Your task to perform on an android device: Add razer naga to the cart on ebay.com Image 0: 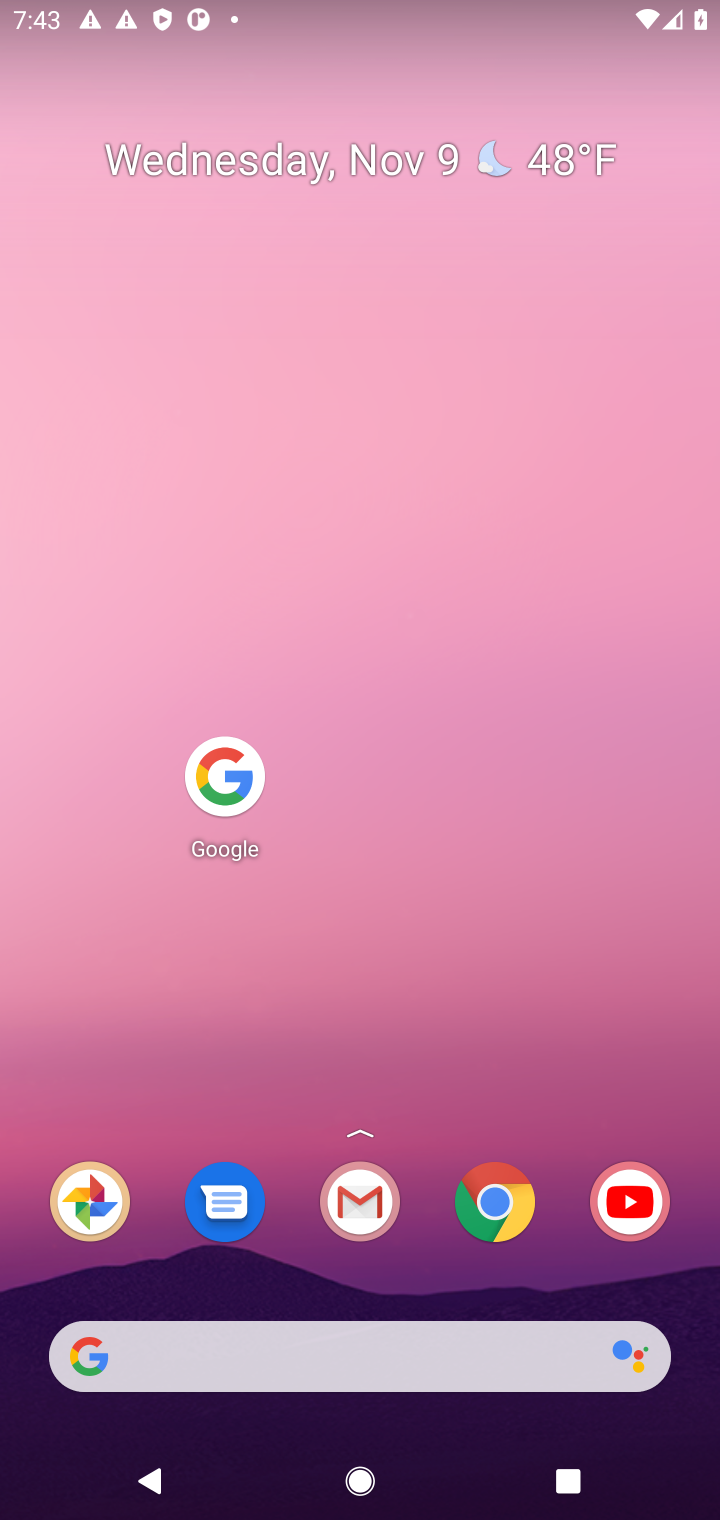
Step 0: click (502, 1212)
Your task to perform on an android device: Add razer naga to the cart on ebay.com Image 1: 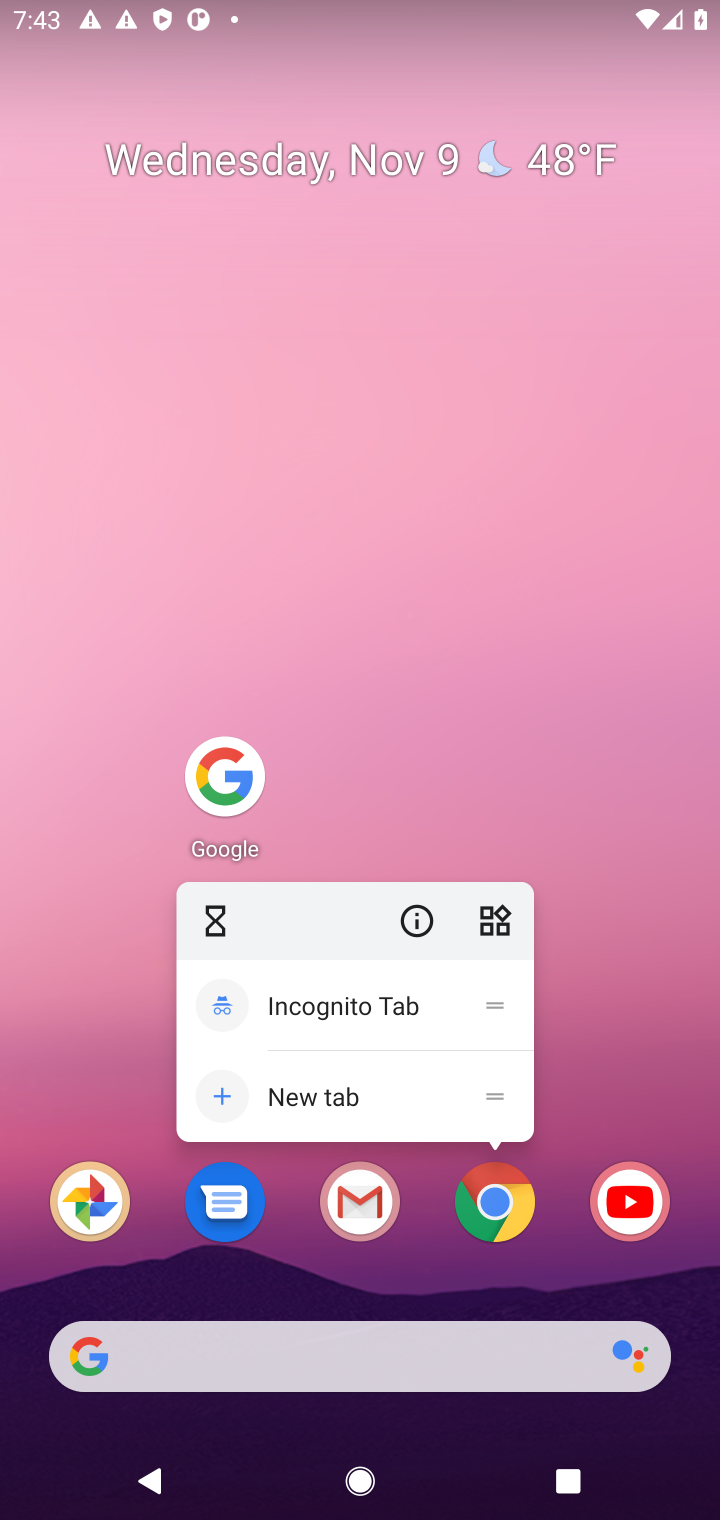
Step 1: click (476, 1216)
Your task to perform on an android device: Add razer naga to the cart on ebay.com Image 2: 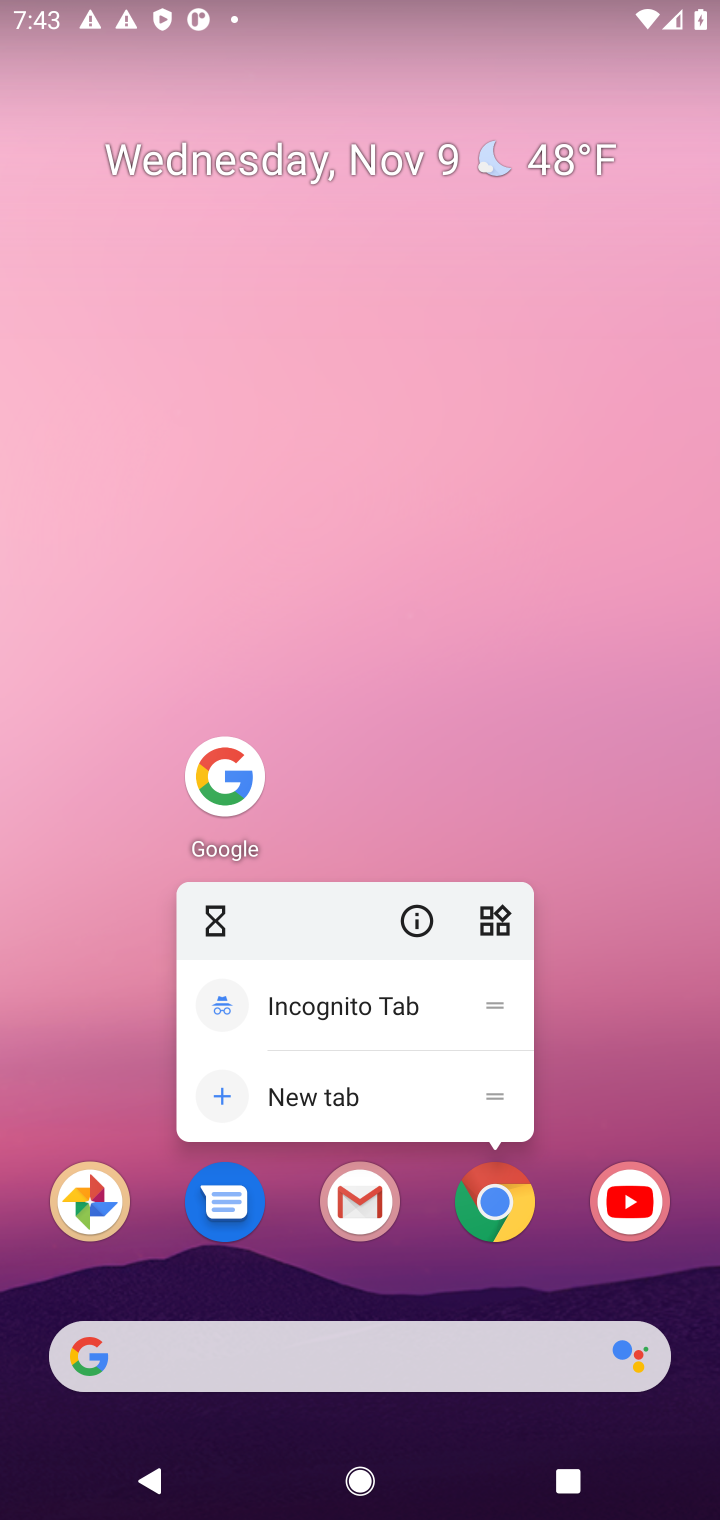
Step 2: click (504, 1202)
Your task to perform on an android device: Add razer naga to the cart on ebay.com Image 3: 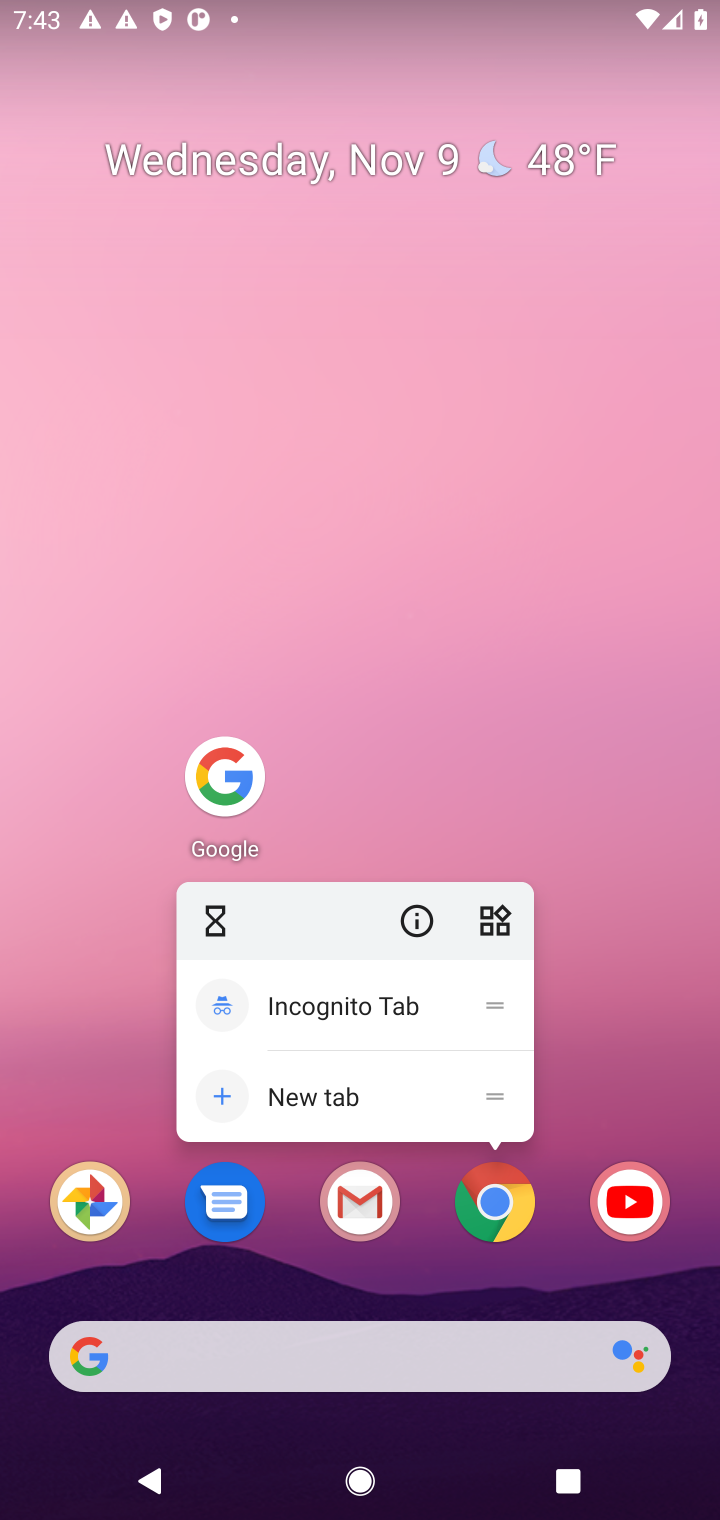
Step 3: click (504, 1204)
Your task to perform on an android device: Add razer naga to the cart on ebay.com Image 4: 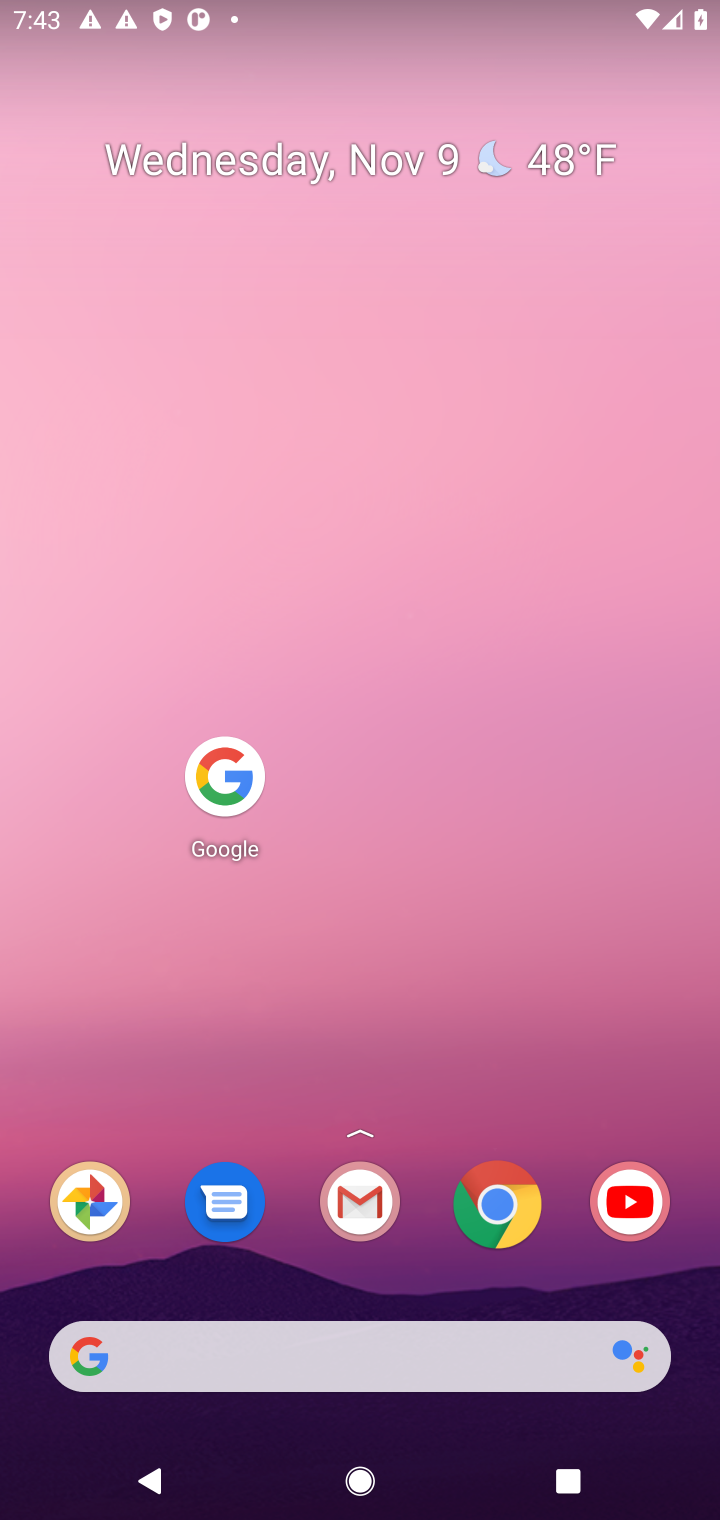
Step 4: click (504, 1204)
Your task to perform on an android device: Add razer naga to the cart on ebay.com Image 5: 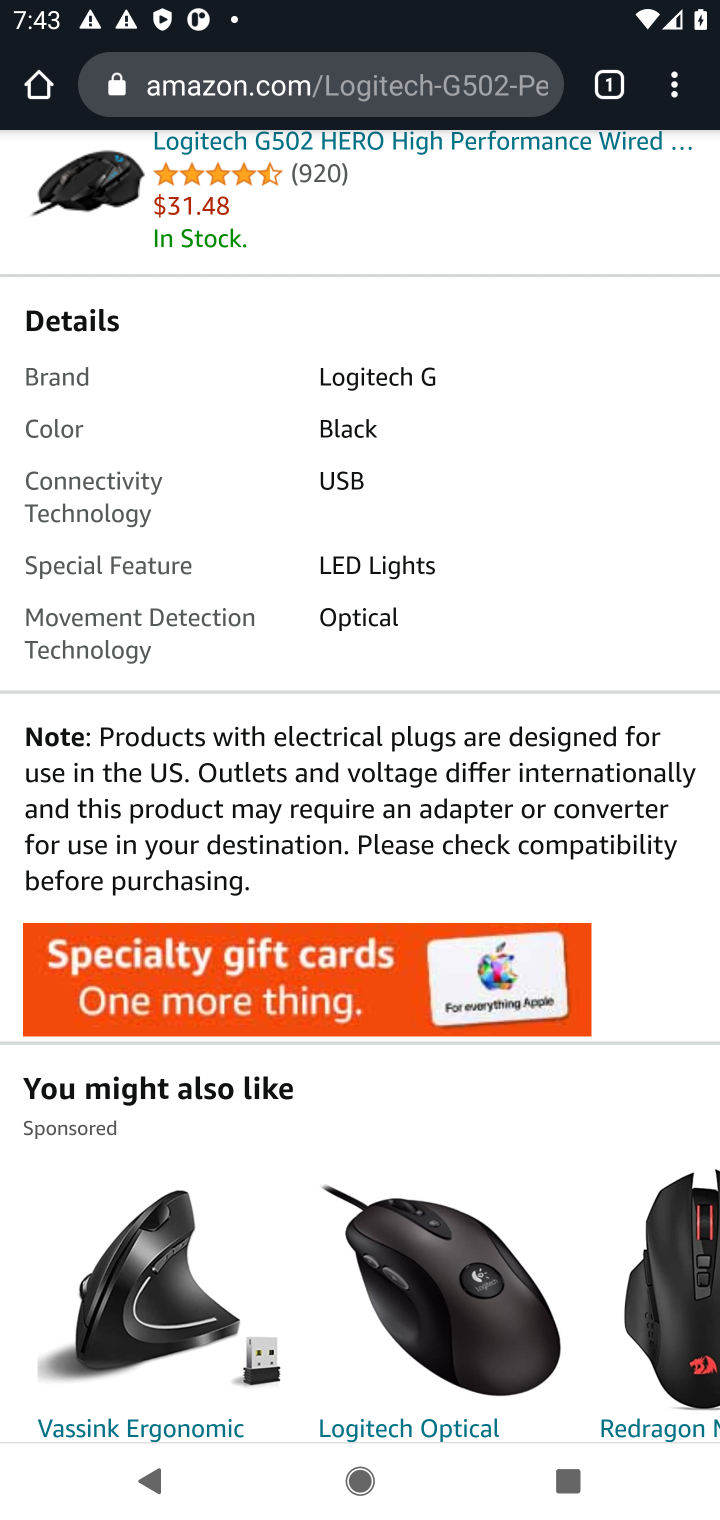
Step 5: click (335, 84)
Your task to perform on an android device: Add razer naga to the cart on ebay.com Image 6: 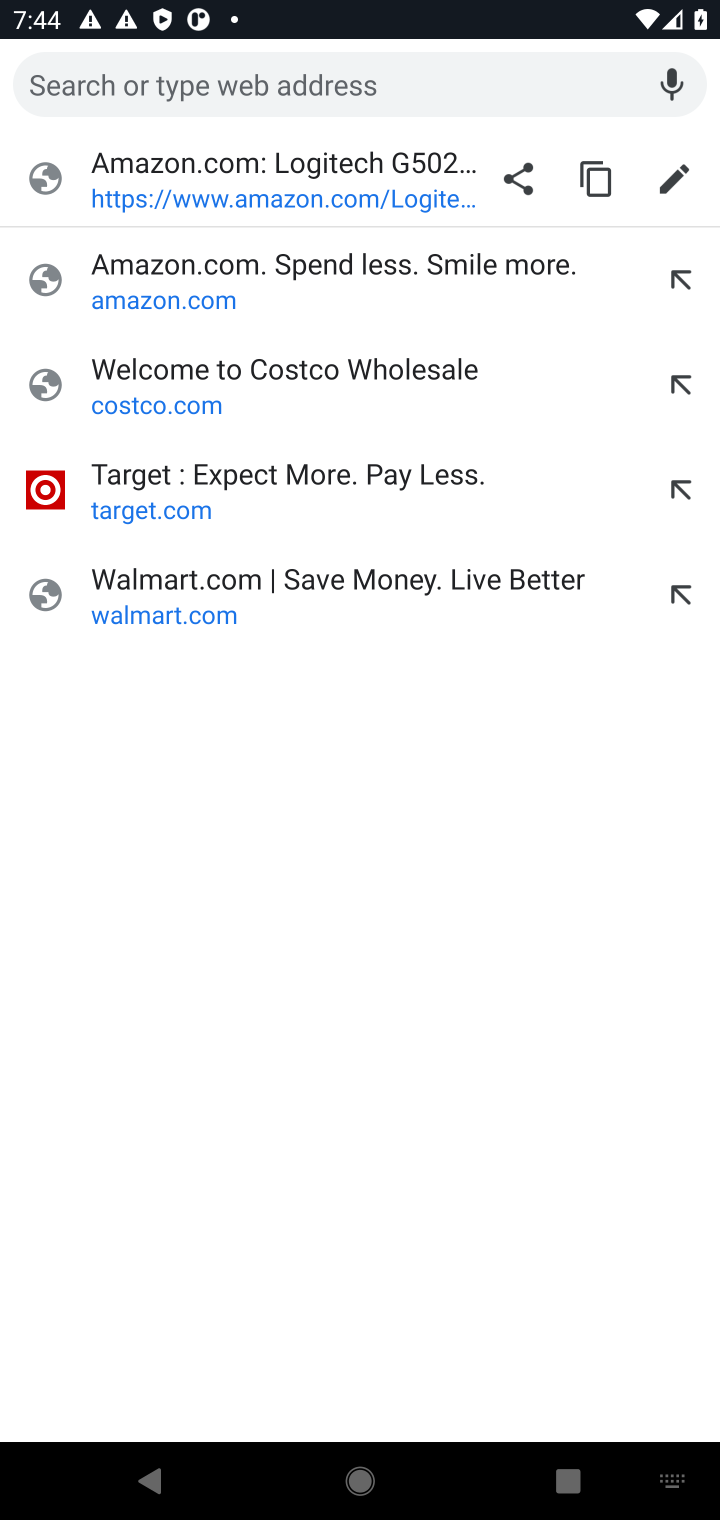
Step 6: type "ebay.com"
Your task to perform on an android device: Add razer naga to the cart on ebay.com Image 7: 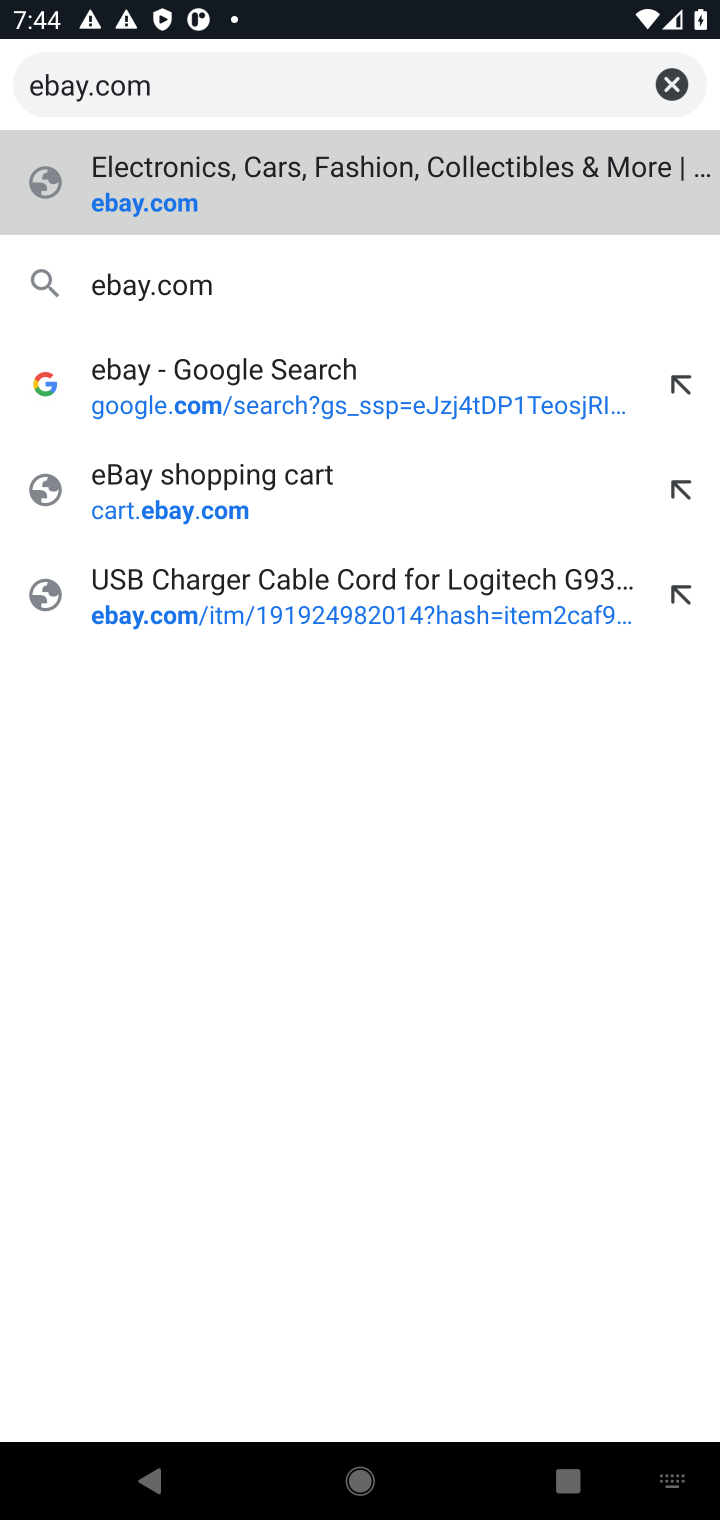
Step 7: press enter
Your task to perform on an android device: Add razer naga to the cart on ebay.com Image 8: 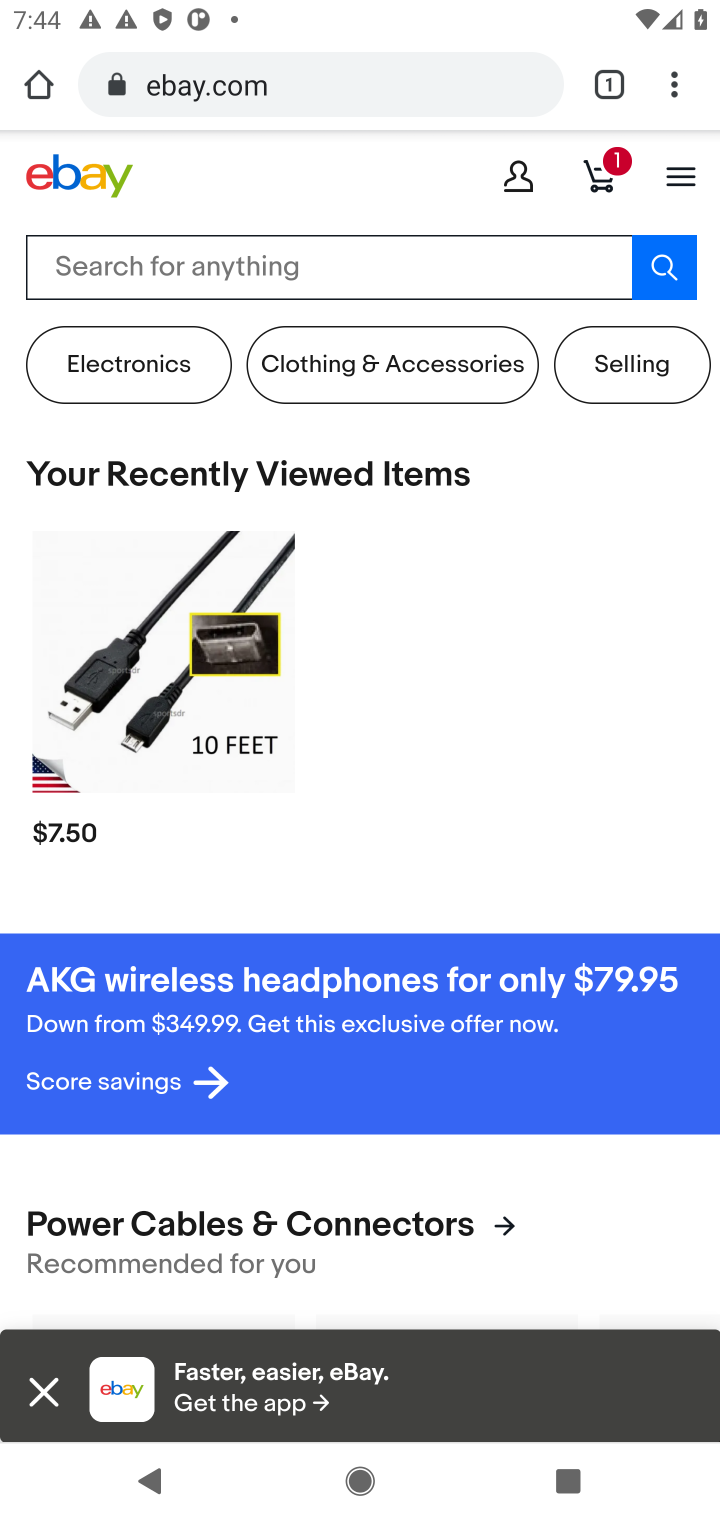
Step 8: click (258, 257)
Your task to perform on an android device: Add razer naga to the cart on ebay.com Image 9: 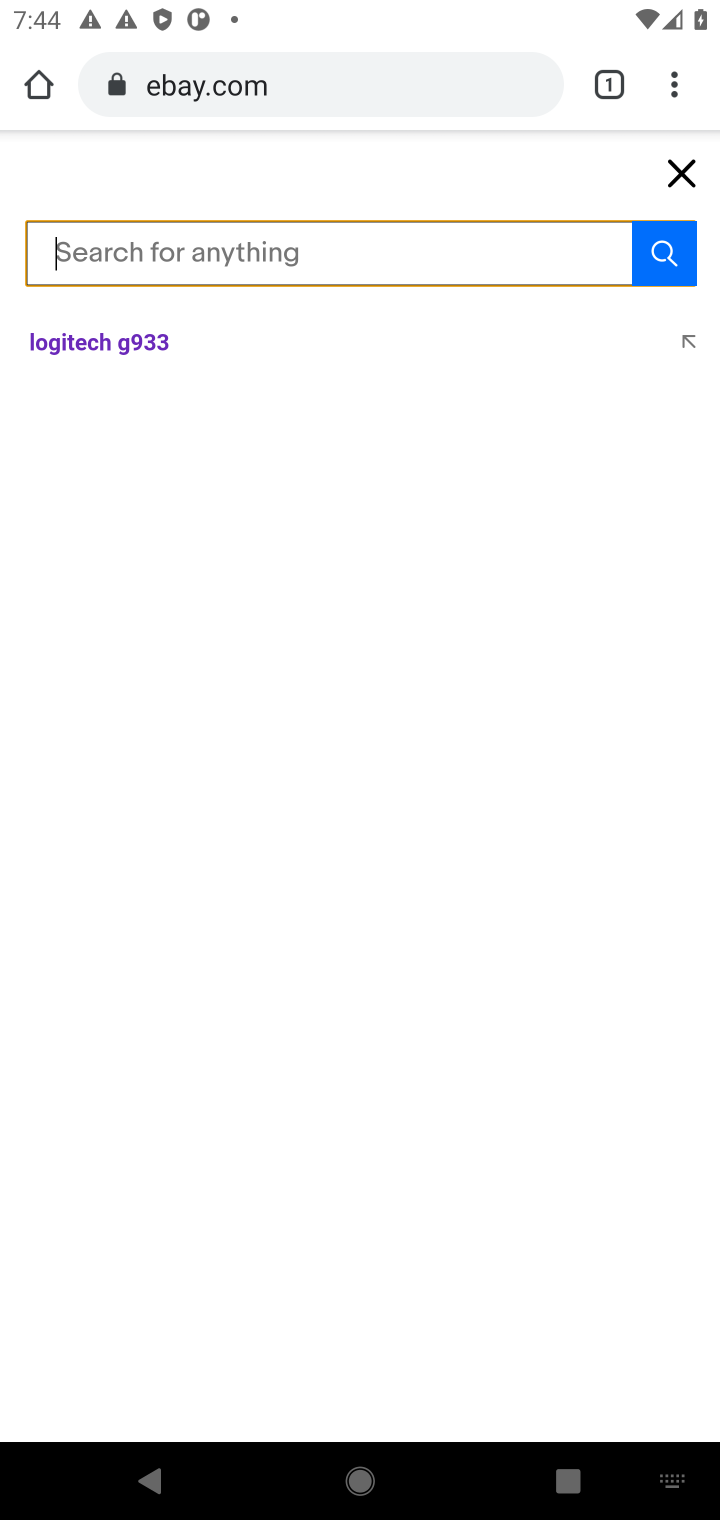
Step 9: type "razer naga "
Your task to perform on an android device: Add razer naga to the cart on ebay.com Image 10: 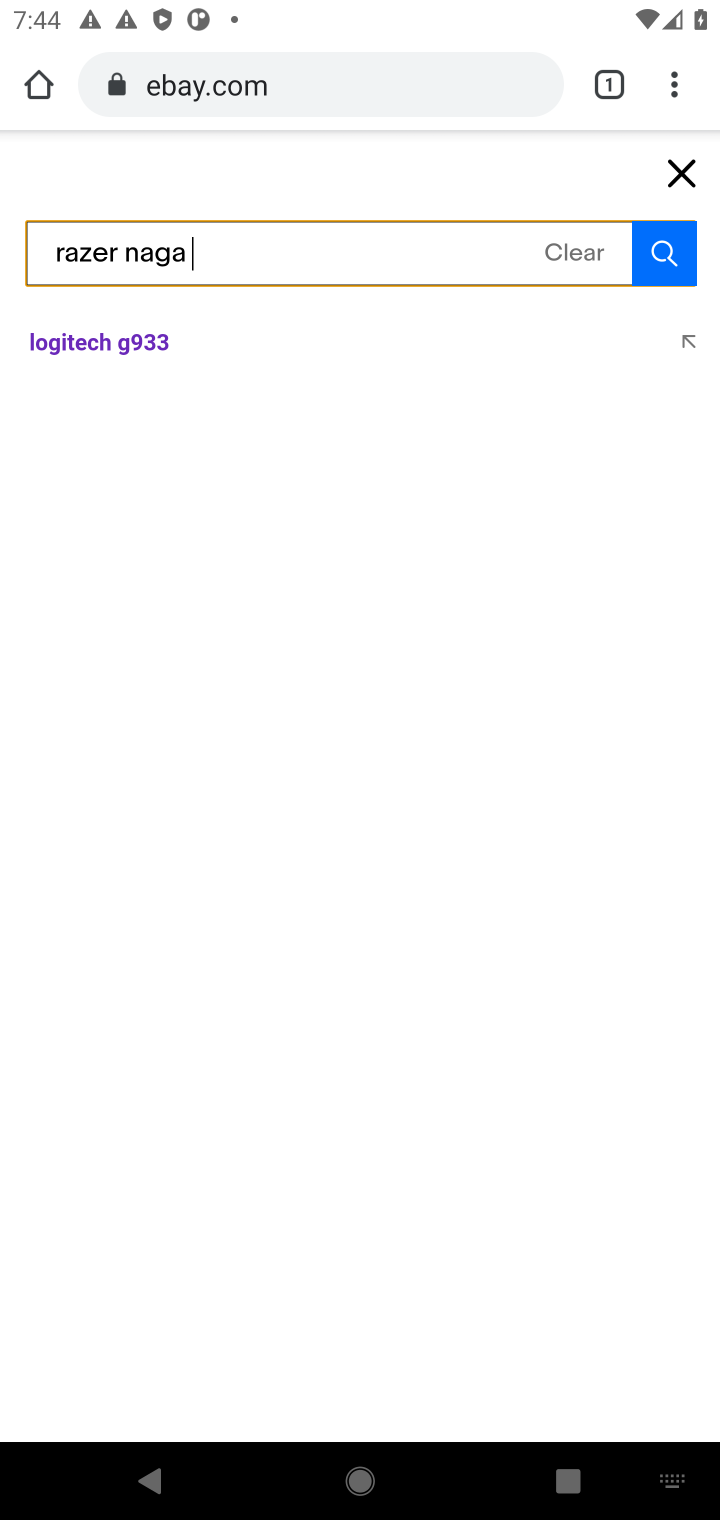
Step 10: press enter
Your task to perform on an android device: Add razer naga to the cart on ebay.com Image 11: 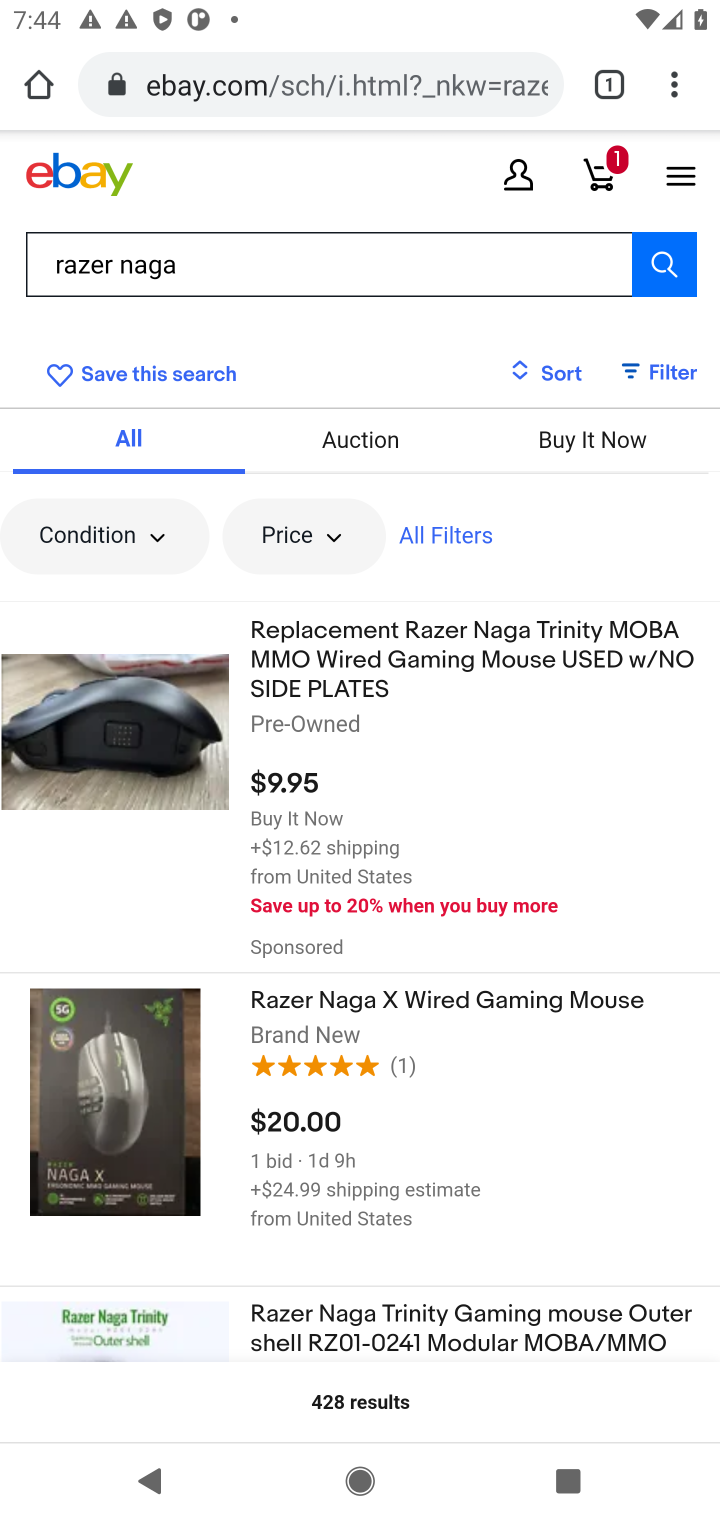
Step 11: click (406, 665)
Your task to perform on an android device: Add razer naga to the cart on ebay.com Image 12: 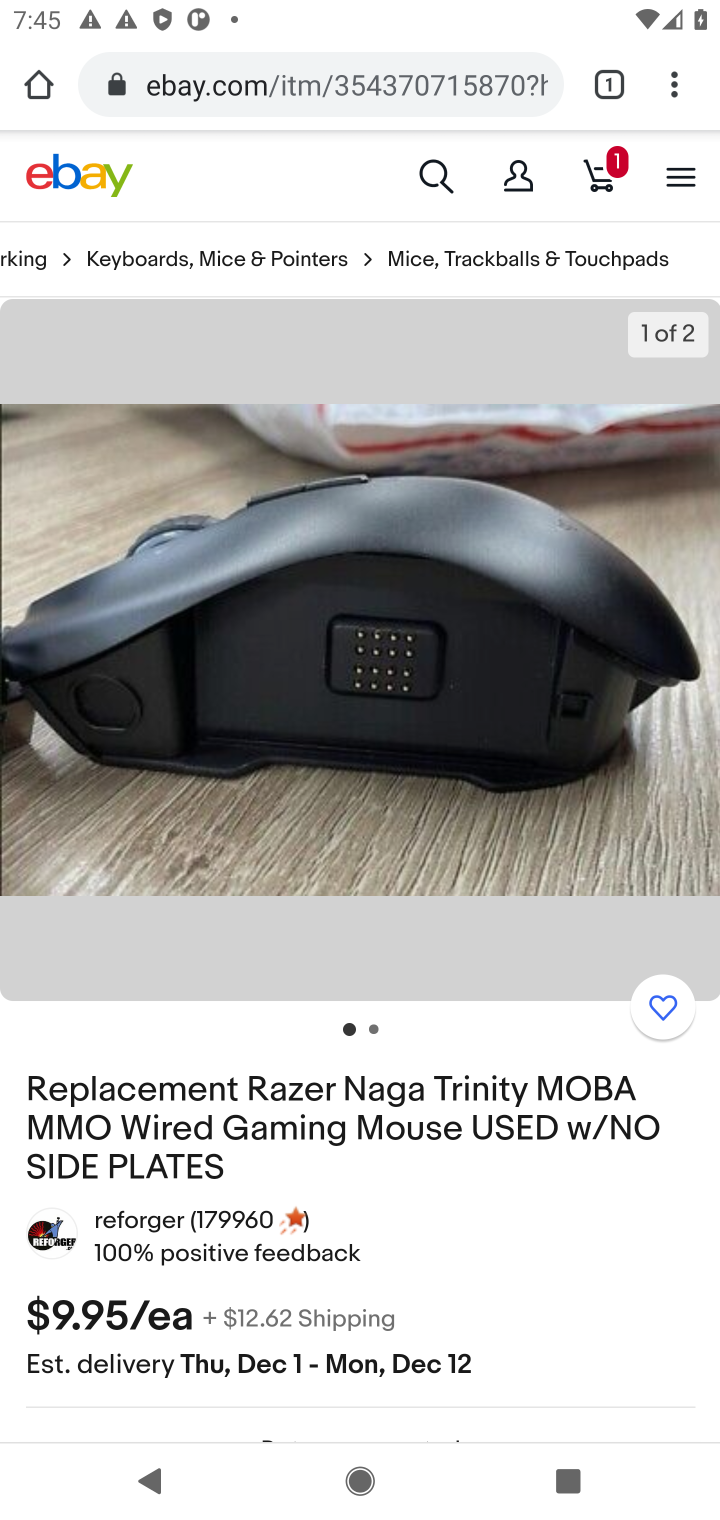
Step 12: drag from (401, 1243) to (566, 418)
Your task to perform on an android device: Add razer naga to the cart on ebay.com Image 13: 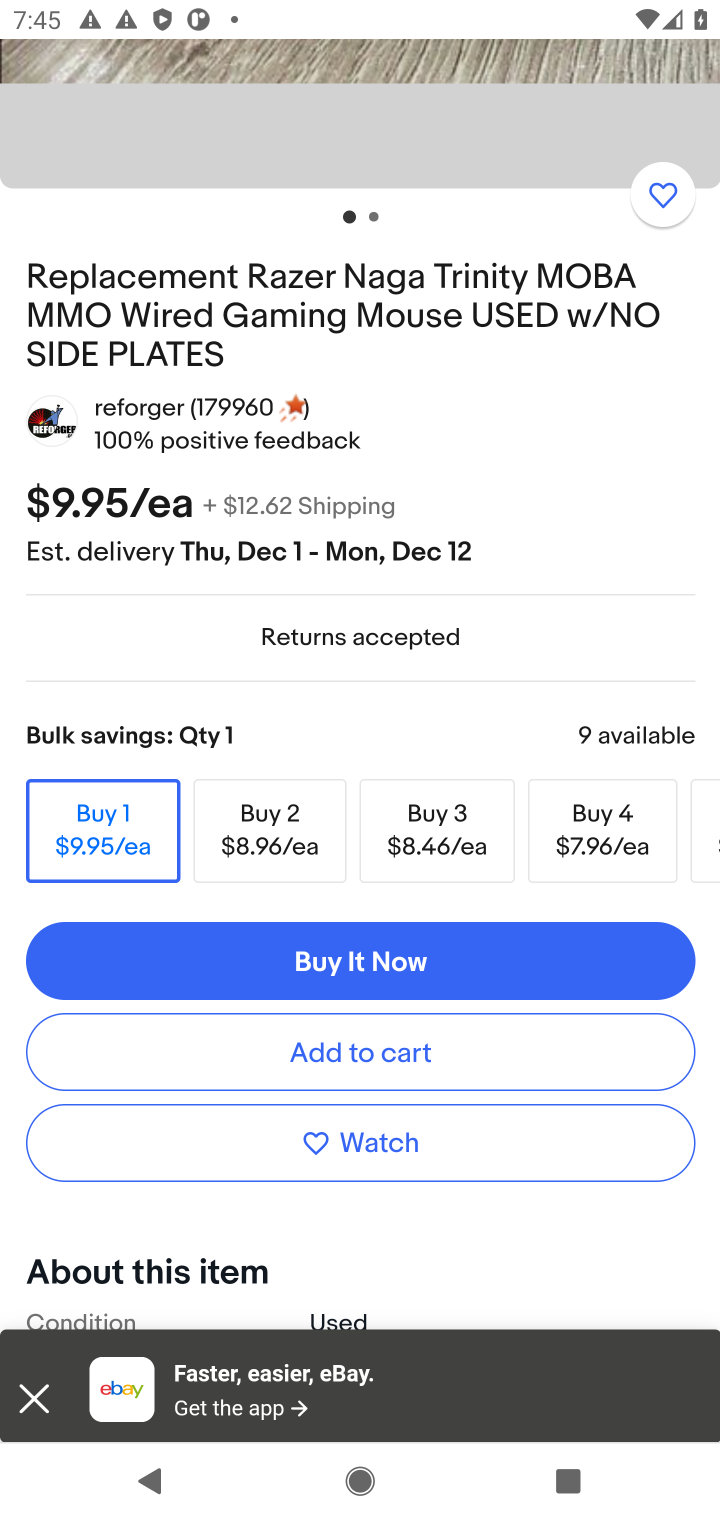
Step 13: click (397, 1056)
Your task to perform on an android device: Add razer naga to the cart on ebay.com Image 14: 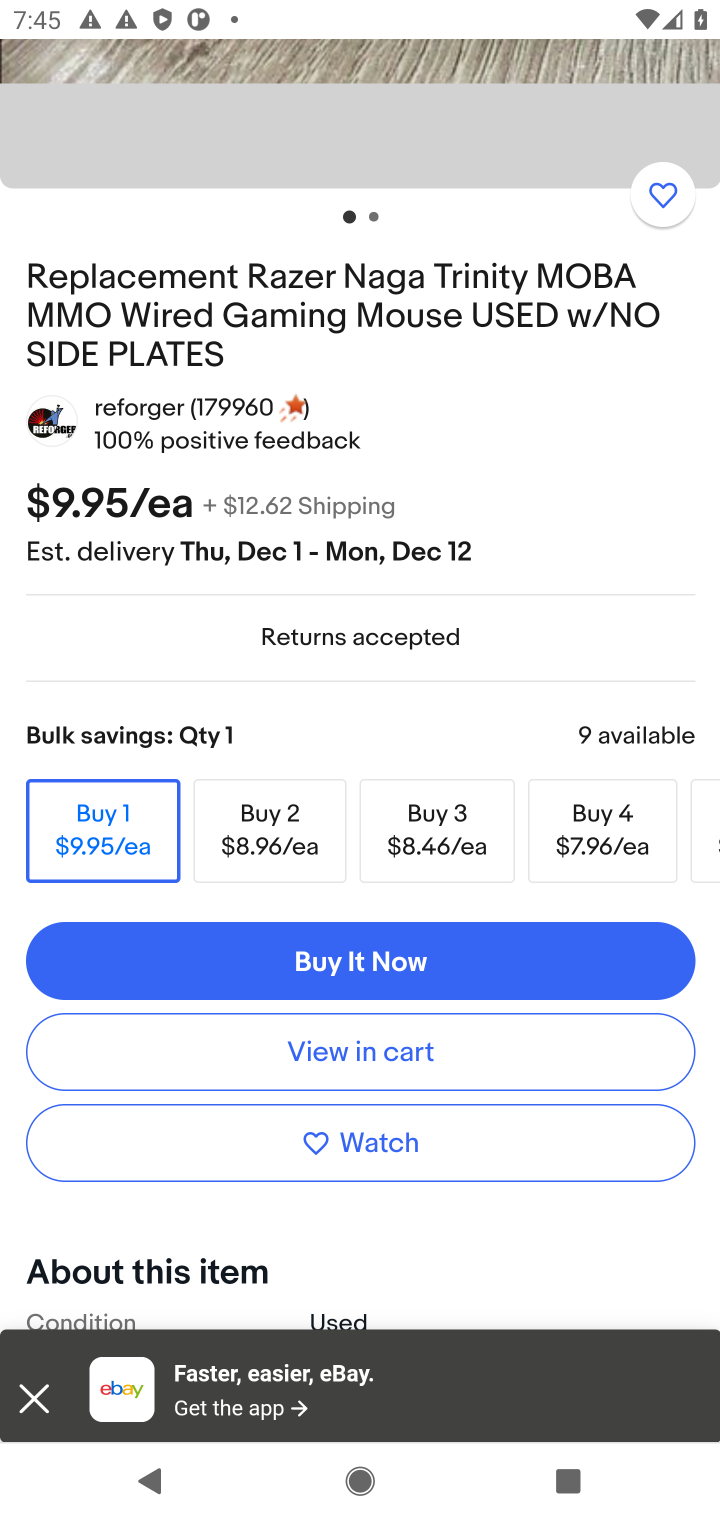
Step 14: click (378, 1046)
Your task to perform on an android device: Add razer naga to the cart on ebay.com Image 15: 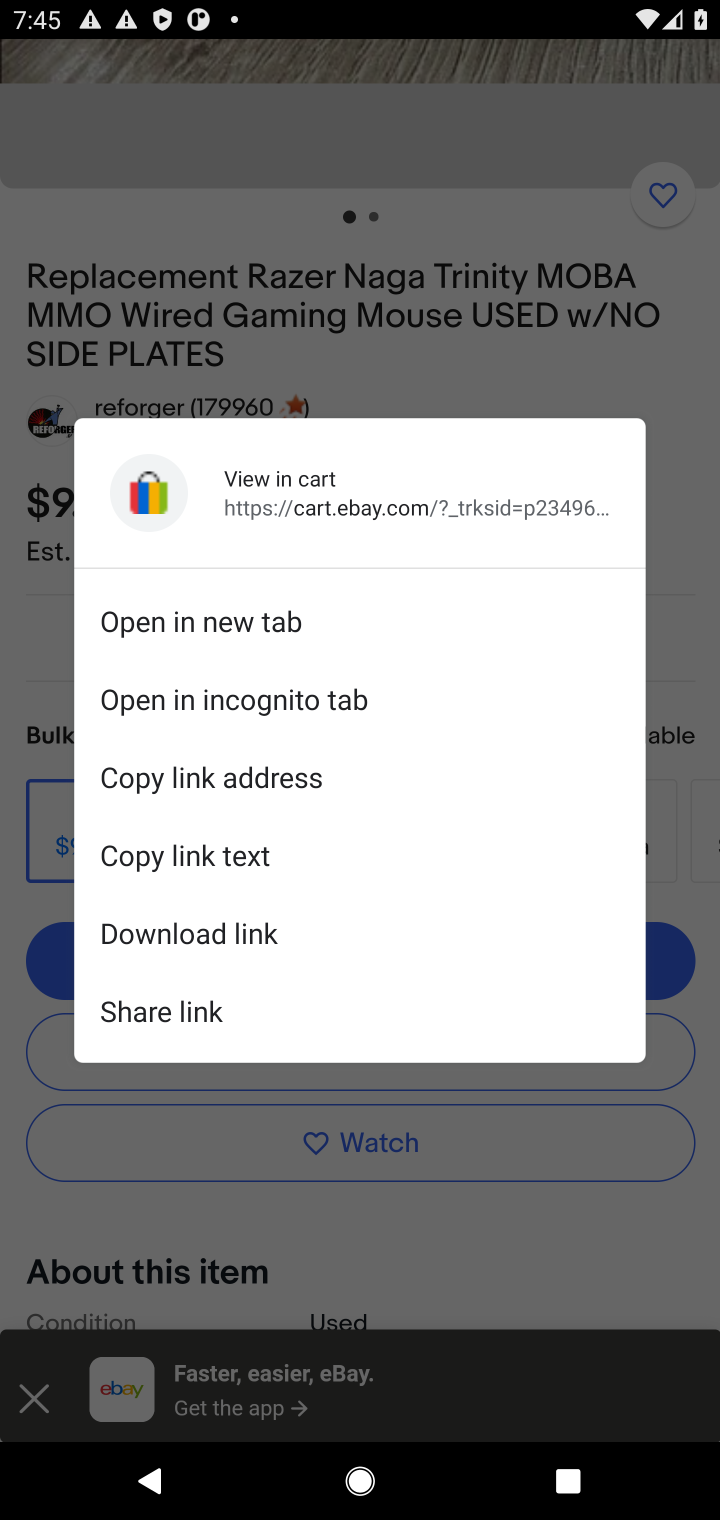
Step 15: click (664, 1263)
Your task to perform on an android device: Add razer naga to the cart on ebay.com Image 16: 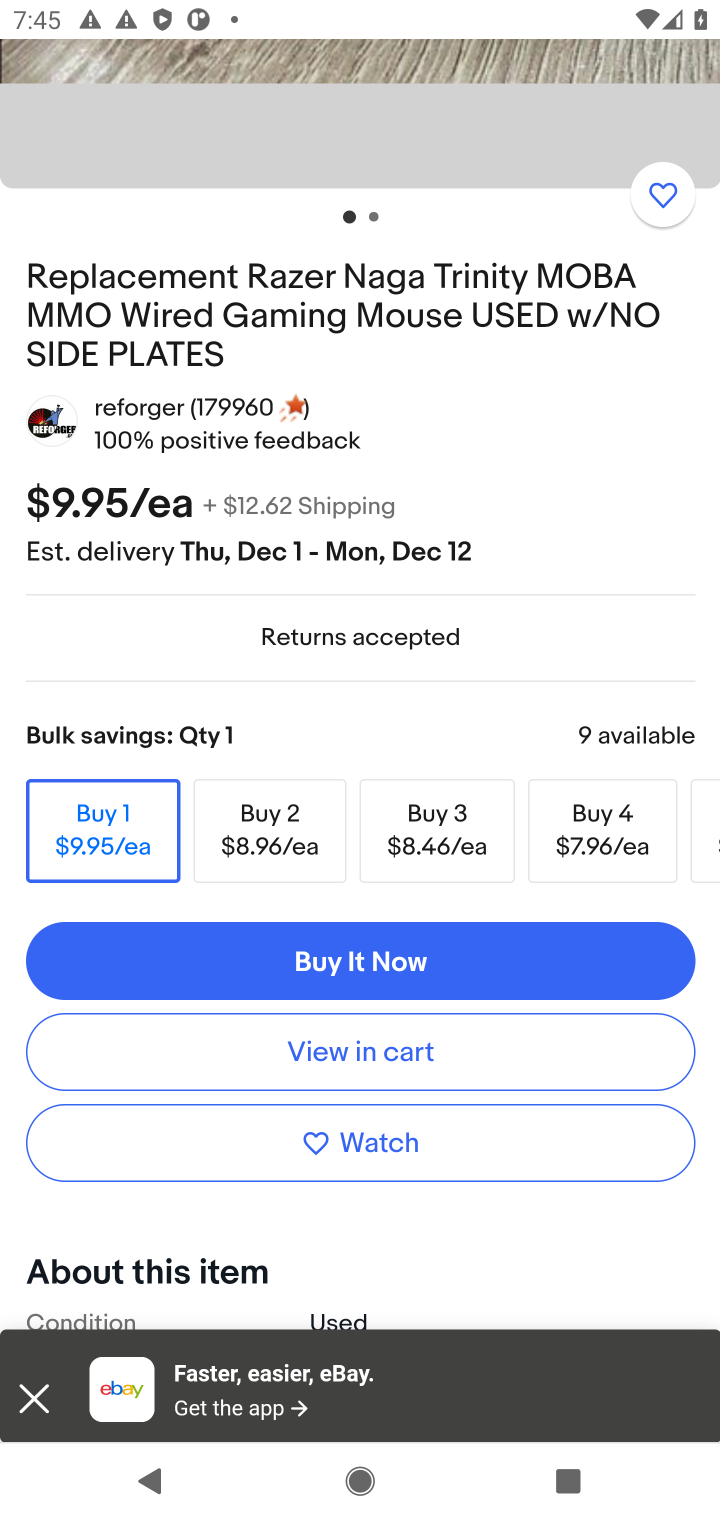
Step 16: click (363, 1056)
Your task to perform on an android device: Add razer naga to the cart on ebay.com Image 17: 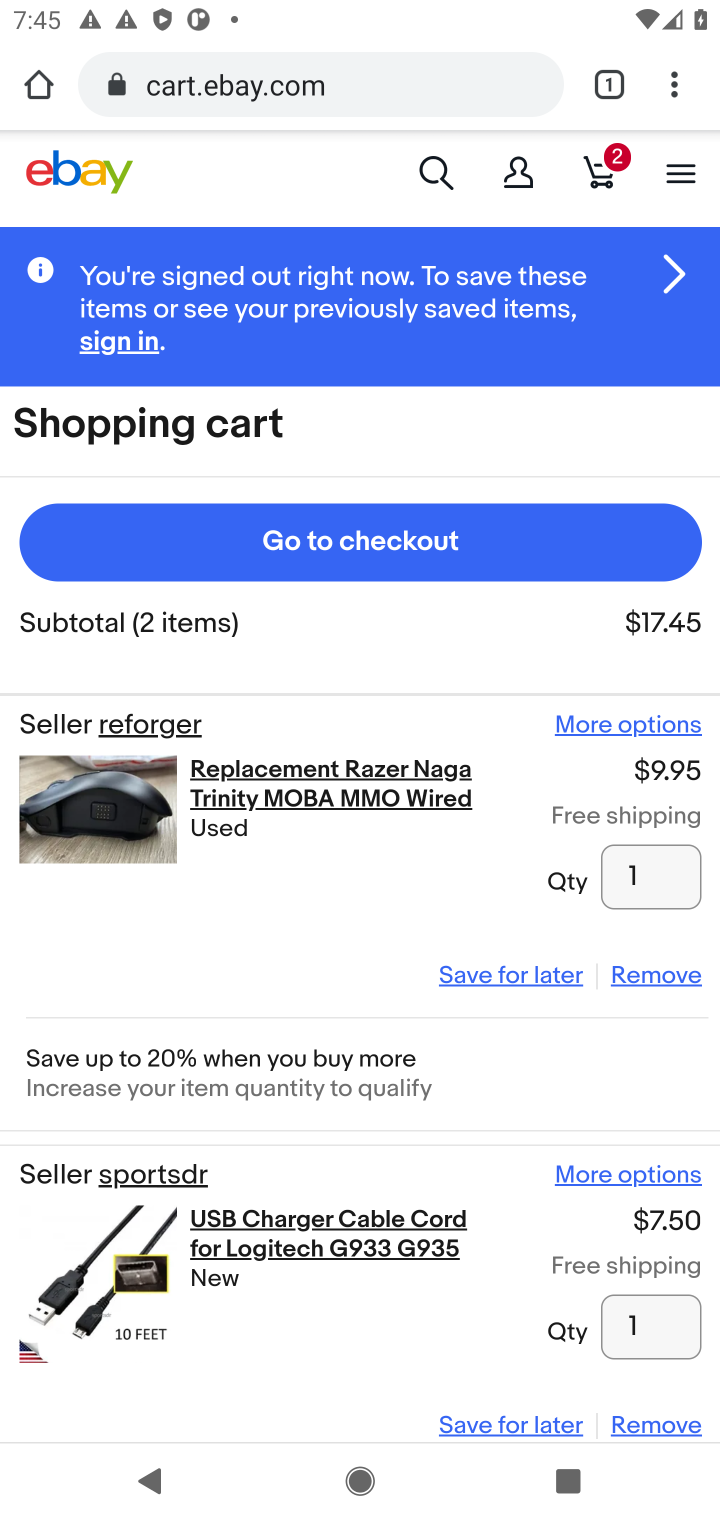
Step 17: click (664, 1420)
Your task to perform on an android device: Add razer naga to the cart on ebay.com Image 18: 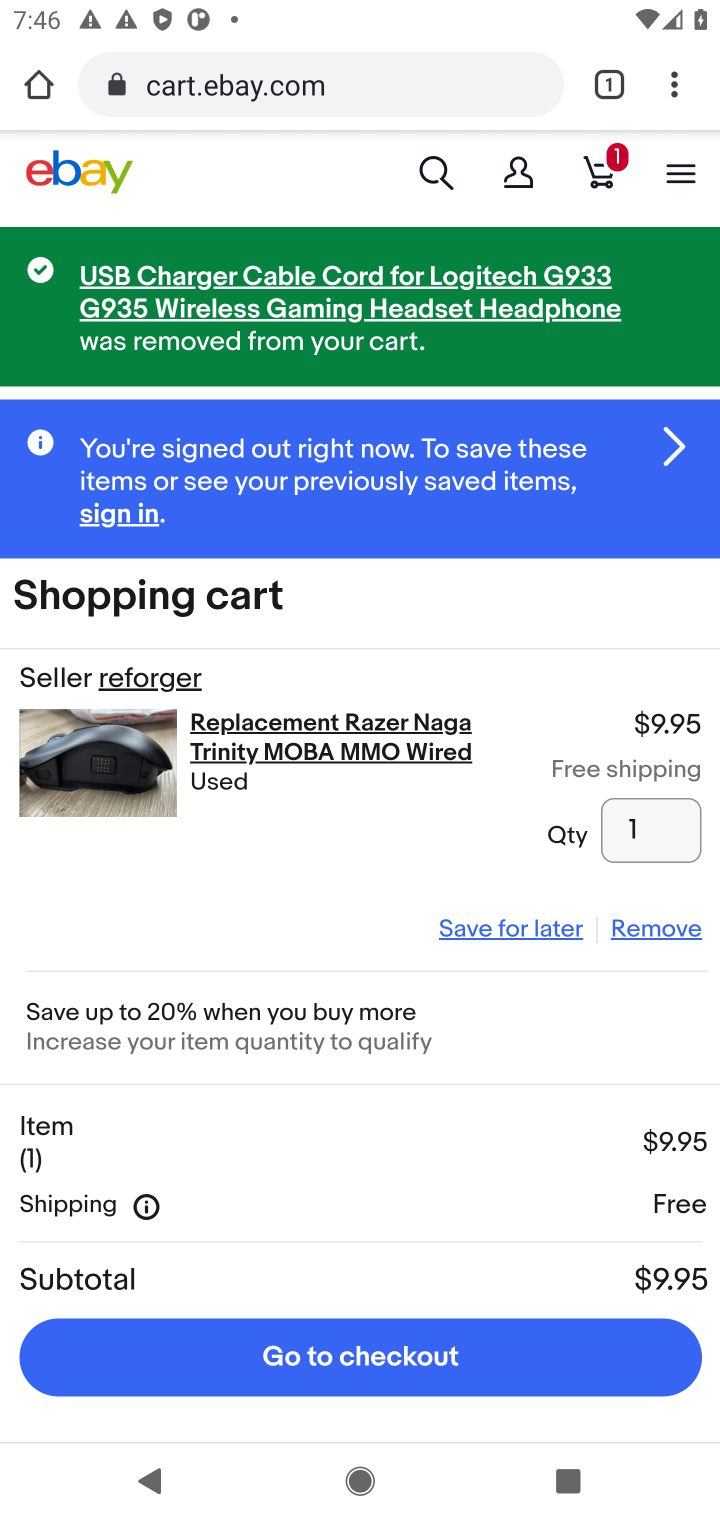
Step 18: task complete